Your task to perform on an android device: turn on data saver in the chrome app Image 0: 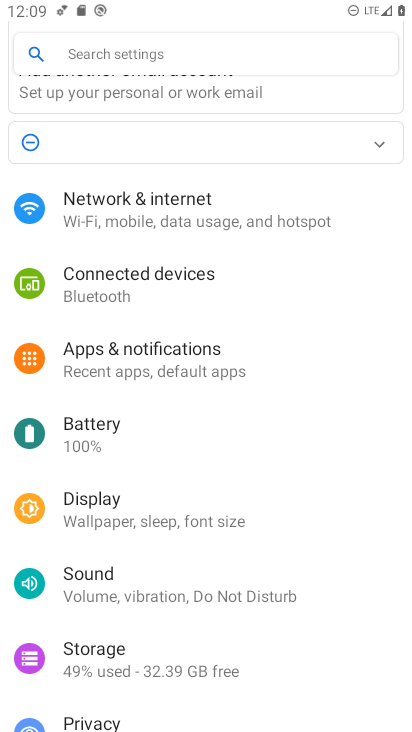
Step 0: press home button
Your task to perform on an android device: turn on data saver in the chrome app Image 1: 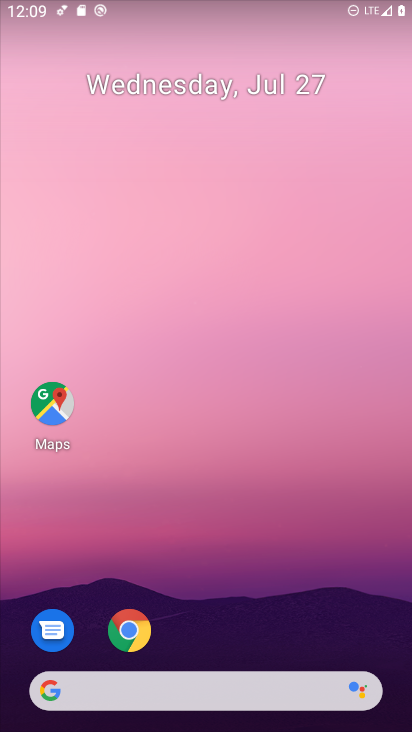
Step 1: click (128, 629)
Your task to perform on an android device: turn on data saver in the chrome app Image 2: 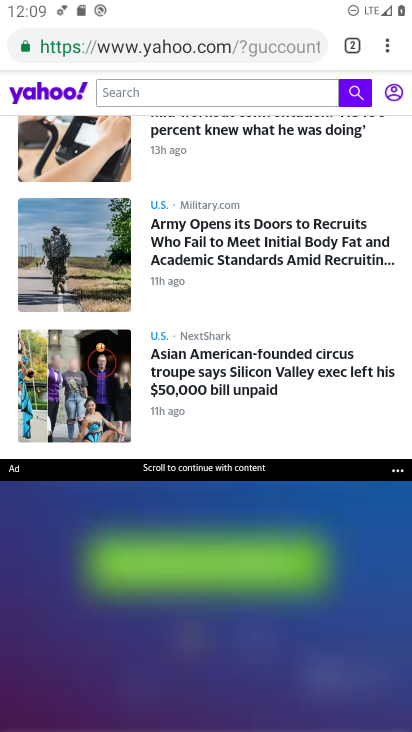
Step 2: click (388, 53)
Your task to perform on an android device: turn on data saver in the chrome app Image 3: 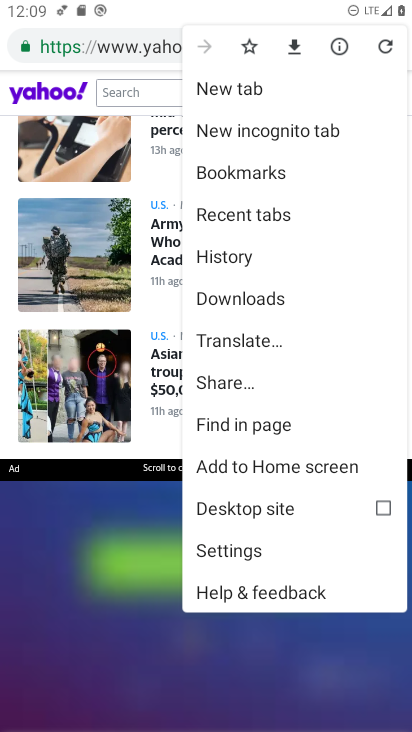
Step 3: click (241, 549)
Your task to perform on an android device: turn on data saver in the chrome app Image 4: 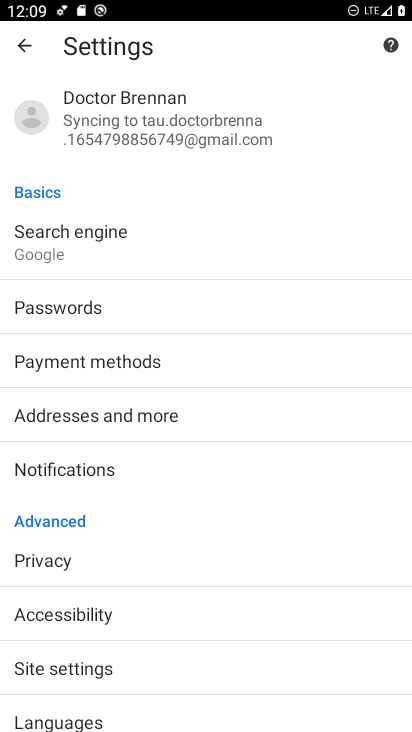
Step 4: drag from (129, 674) to (153, 309)
Your task to perform on an android device: turn on data saver in the chrome app Image 5: 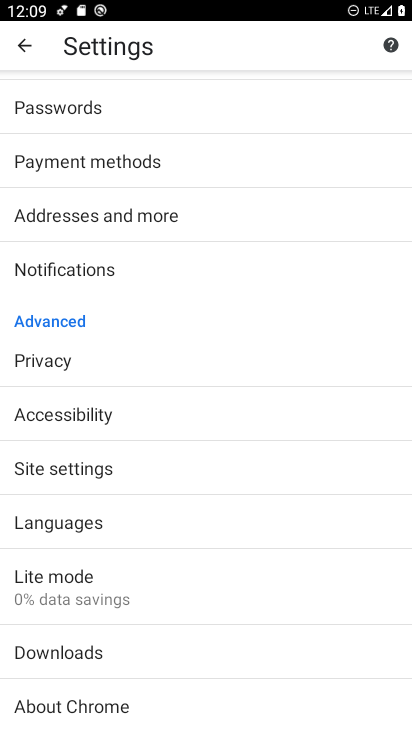
Step 5: click (55, 570)
Your task to perform on an android device: turn on data saver in the chrome app Image 6: 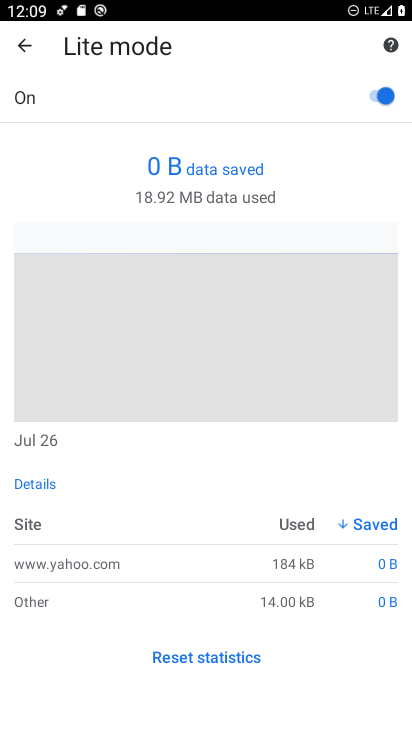
Step 6: task complete